Your task to perform on an android device: Search for Mexican restaurants on Maps Image 0: 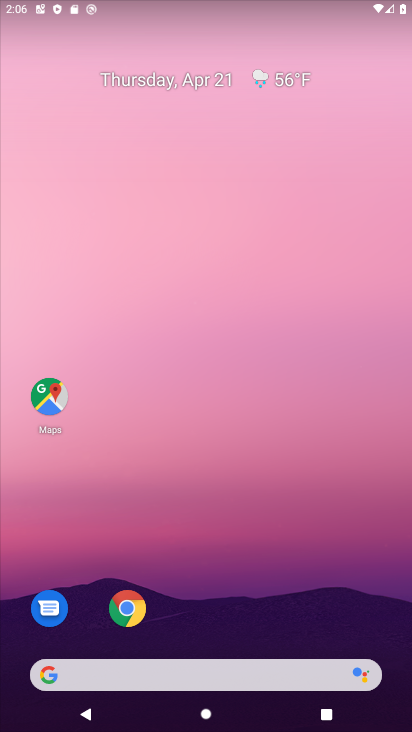
Step 0: click (51, 390)
Your task to perform on an android device: Search for Mexican restaurants on Maps Image 1: 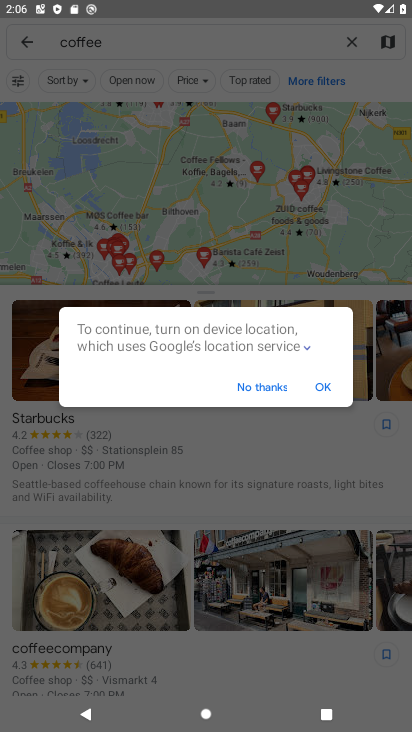
Step 1: click (328, 378)
Your task to perform on an android device: Search for Mexican restaurants on Maps Image 2: 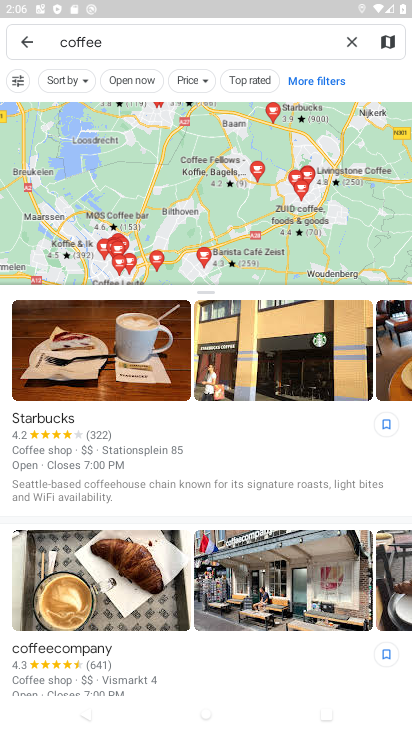
Step 2: click (351, 37)
Your task to perform on an android device: Search for Mexican restaurants on Maps Image 3: 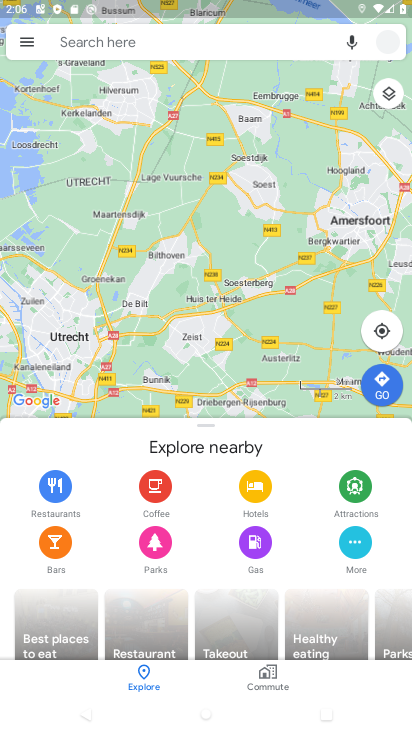
Step 3: click (108, 40)
Your task to perform on an android device: Search for Mexican restaurants on Maps Image 4: 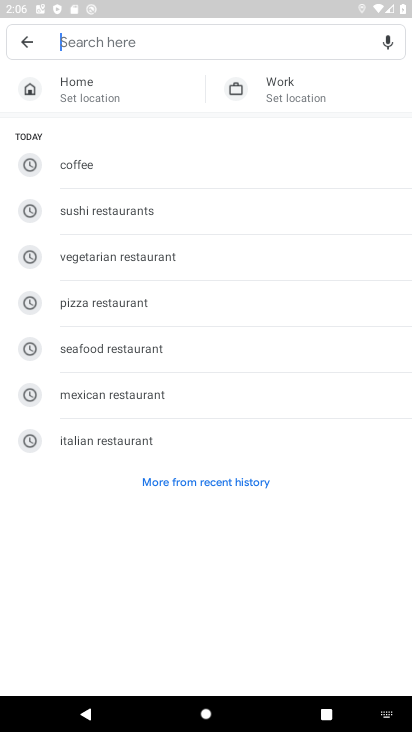
Step 4: click (123, 398)
Your task to perform on an android device: Search for Mexican restaurants on Maps Image 5: 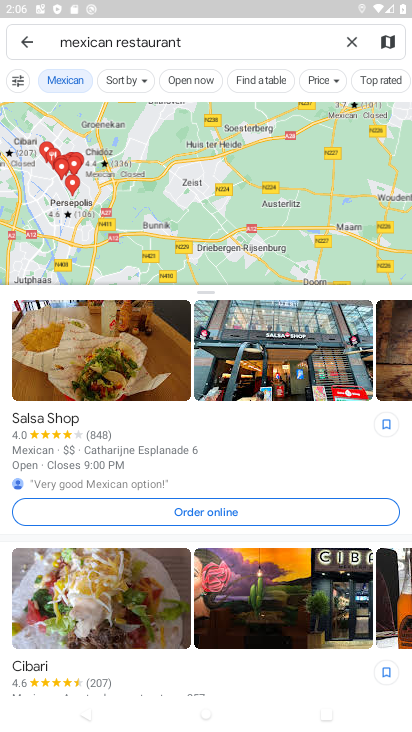
Step 5: task complete